Your task to perform on an android device: turn off improve location accuracy Image 0: 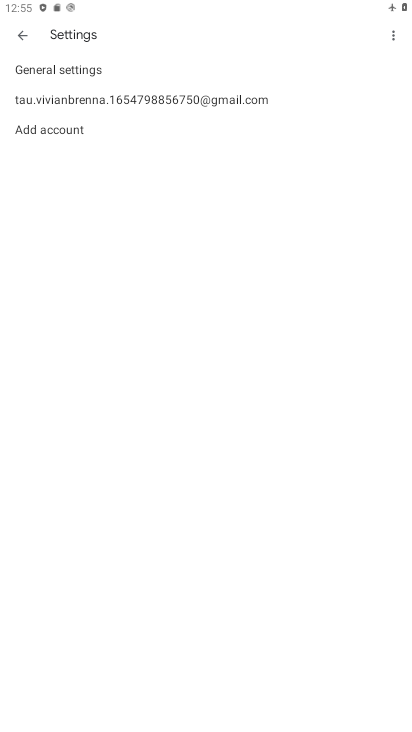
Step 0: click (171, 100)
Your task to perform on an android device: turn off improve location accuracy Image 1: 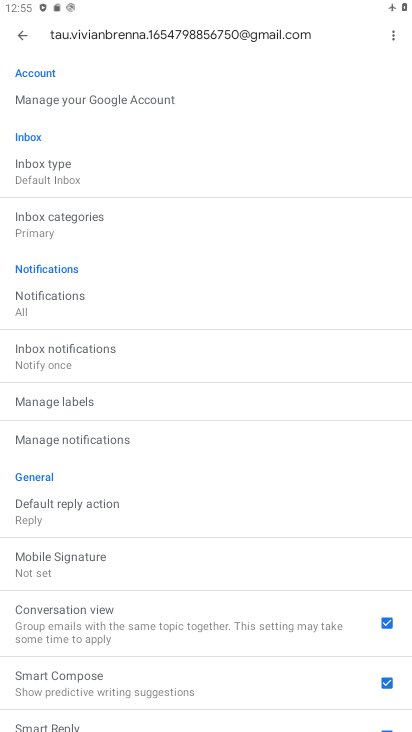
Step 1: press home button
Your task to perform on an android device: turn off improve location accuracy Image 2: 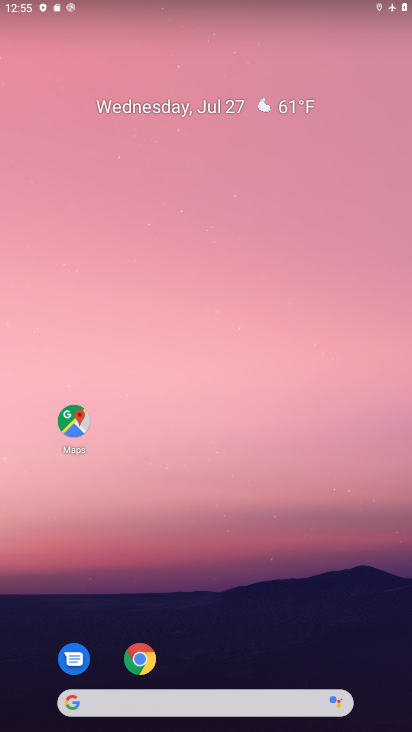
Step 2: drag from (273, 455) to (273, 93)
Your task to perform on an android device: turn off improve location accuracy Image 3: 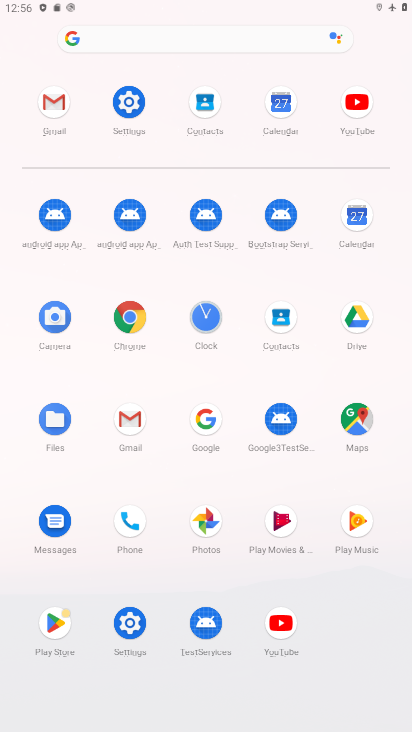
Step 3: click (123, 119)
Your task to perform on an android device: turn off improve location accuracy Image 4: 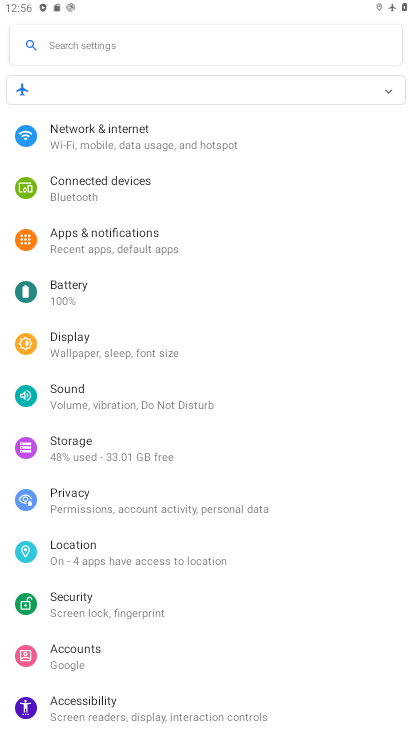
Step 4: click (120, 540)
Your task to perform on an android device: turn off improve location accuracy Image 5: 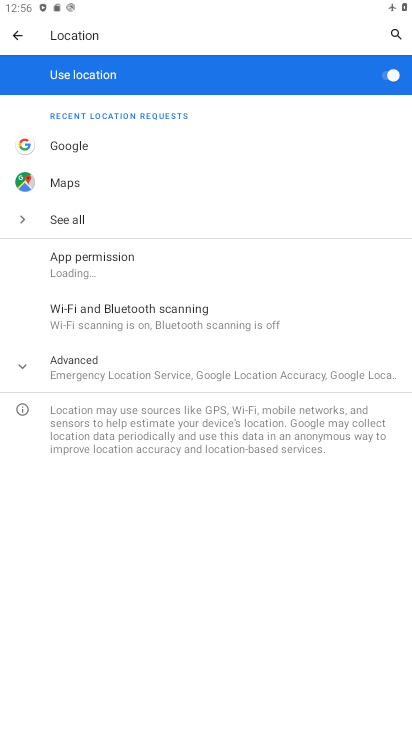
Step 5: click (147, 366)
Your task to perform on an android device: turn off improve location accuracy Image 6: 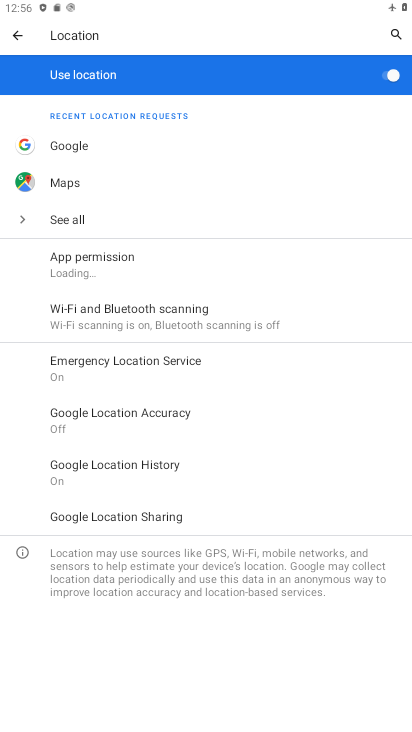
Step 6: click (221, 426)
Your task to perform on an android device: turn off improve location accuracy Image 7: 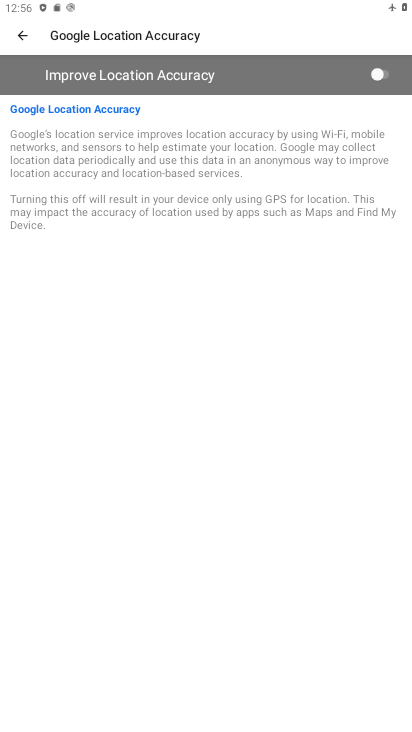
Step 7: task complete